Your task to perform on an android device: delete location history Image 0: 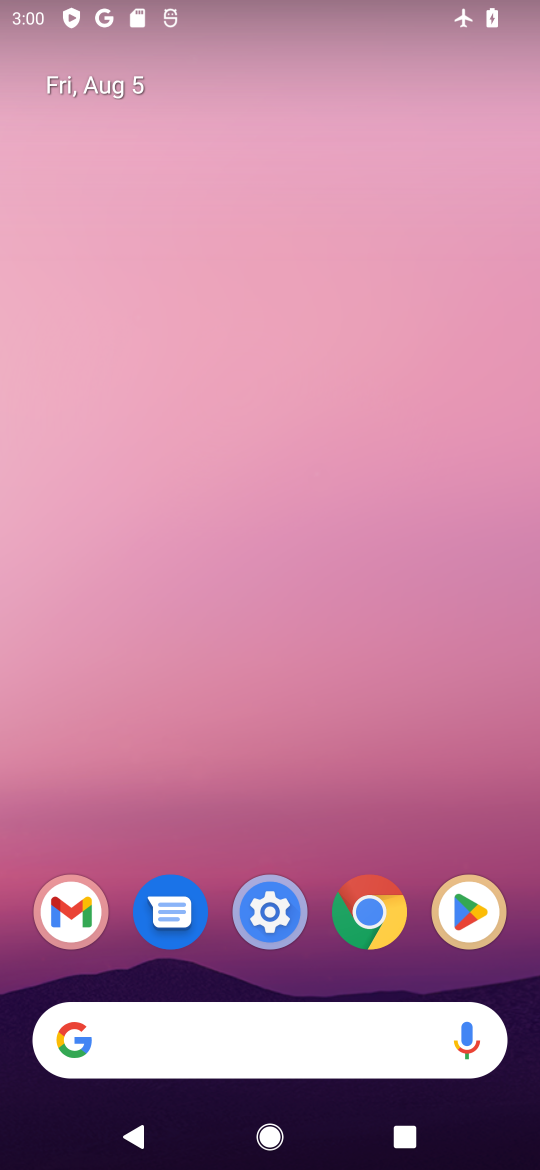
Step 0: drag from (217, 822) to (209, 3)
Your task to perform on an android device: delete location history Image 1: 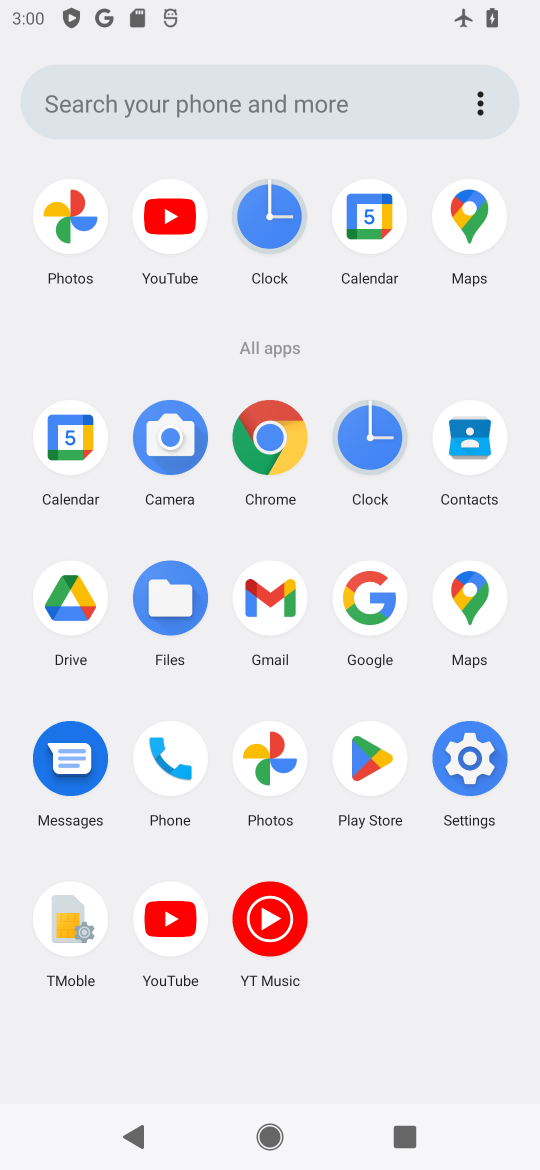
Step 1: click (466, 588)
Your task to perform on an android device: delete location history Image 2: 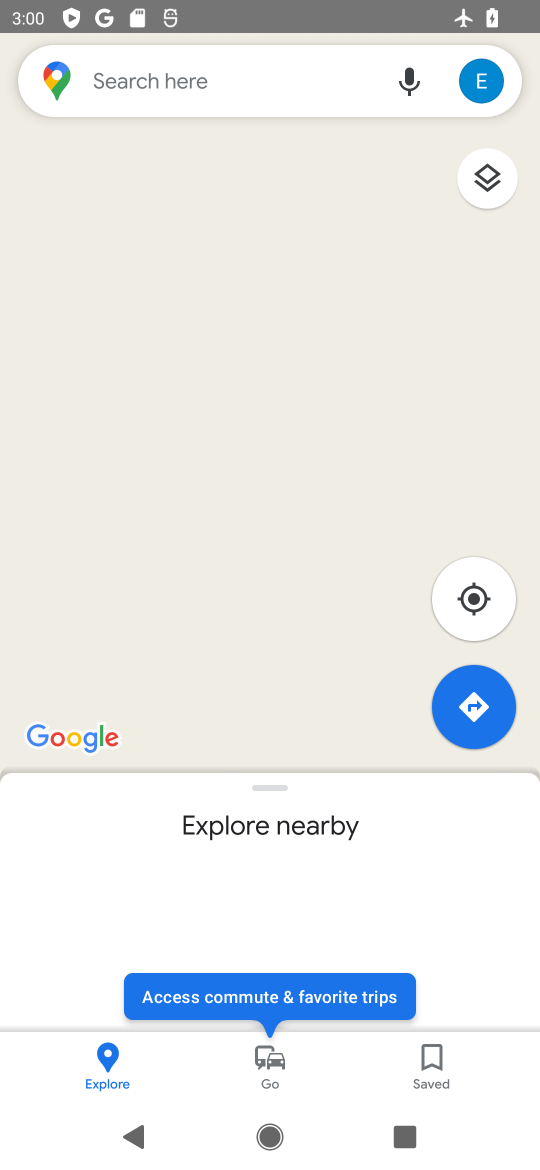
Step 2: click (54, 87)
Your task to perform on an android device: delete location history Image 3: 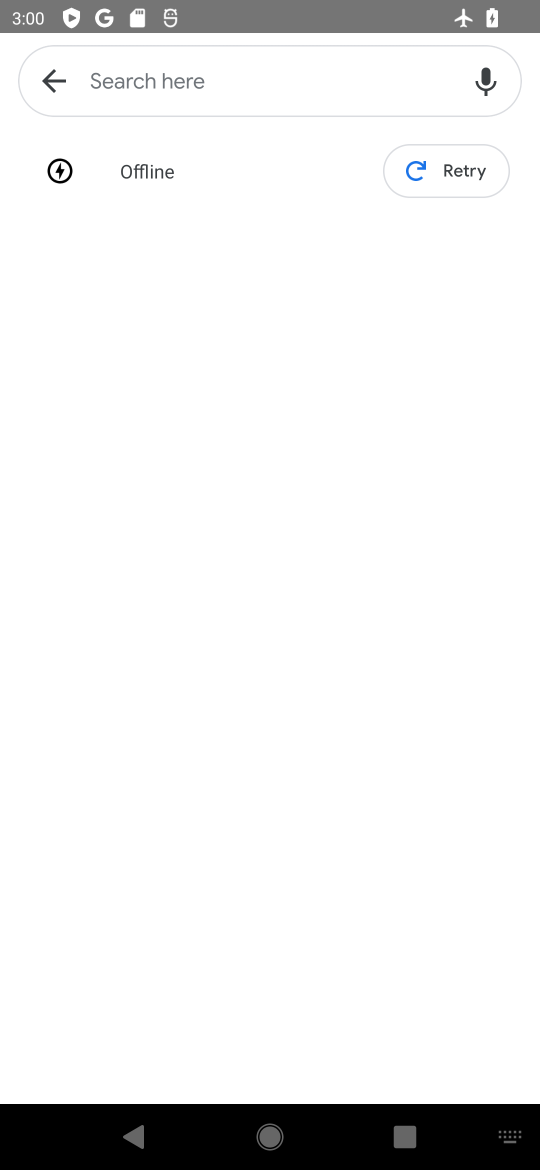
Step 3: click (54, 85)
Your task to perform on an android device: delete location history Image 4: 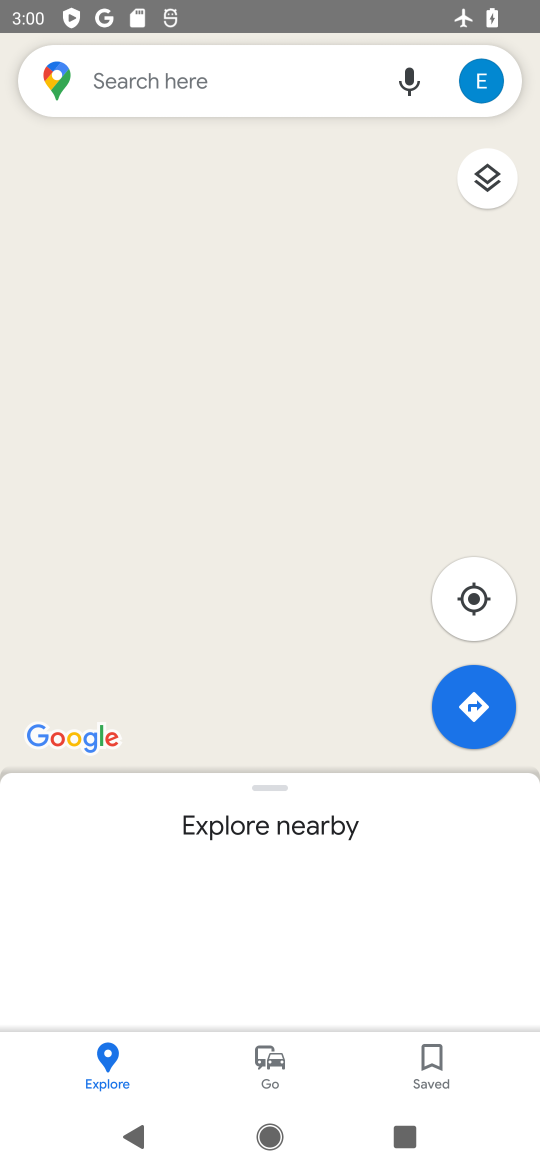
Step 4: click (485, 83)
Your task to perform on an android device: delete location history Image 5: 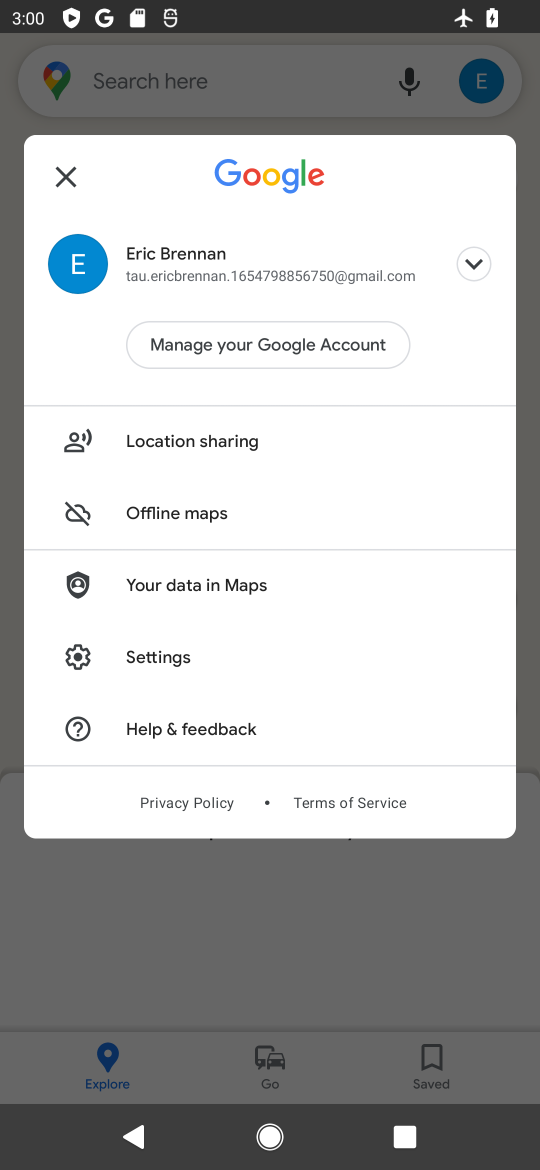
Step 5: click (176, 646)
Your task to perform on an android device: delete location history Image 6: 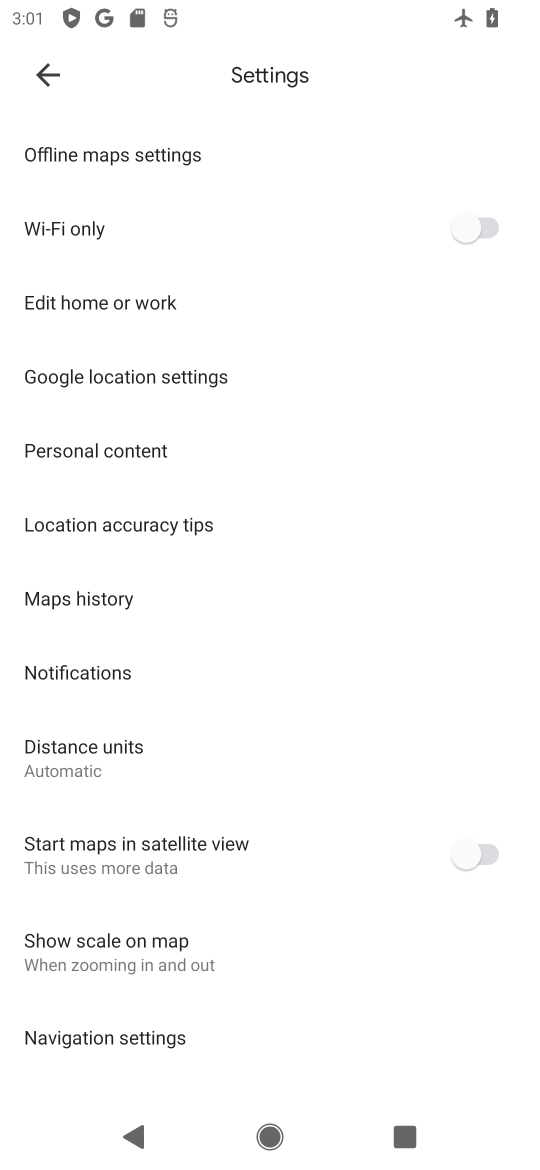
Step 6: drag from (170, 839) to (221, 547)
Your task to perform on an android device: delete location history Image 7: 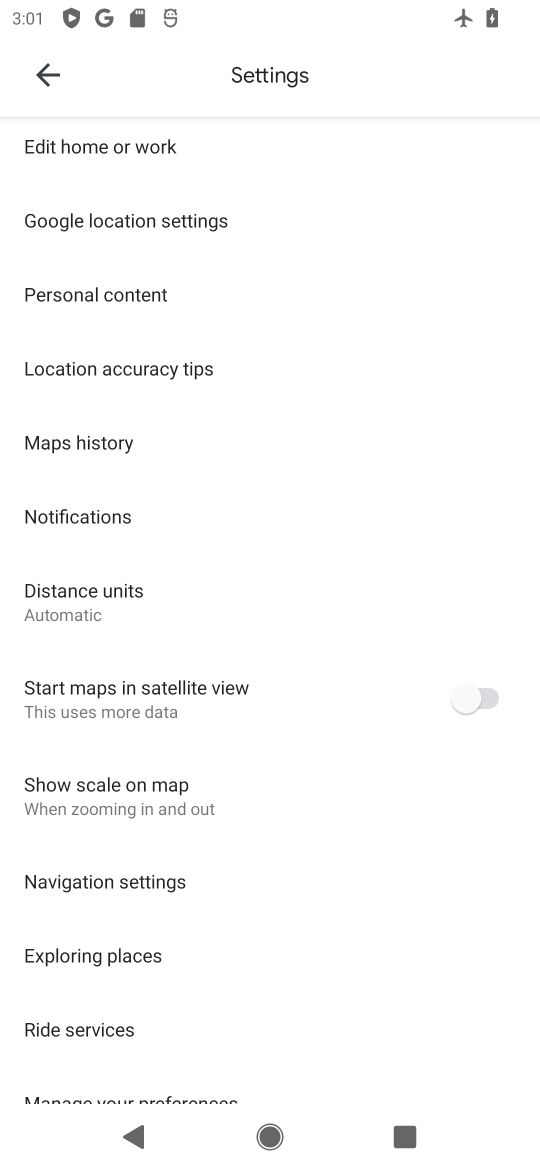
Step 7: drag from (198, 883) to (235, 543)
Your task to perform on an android device: delete location history Image 8: 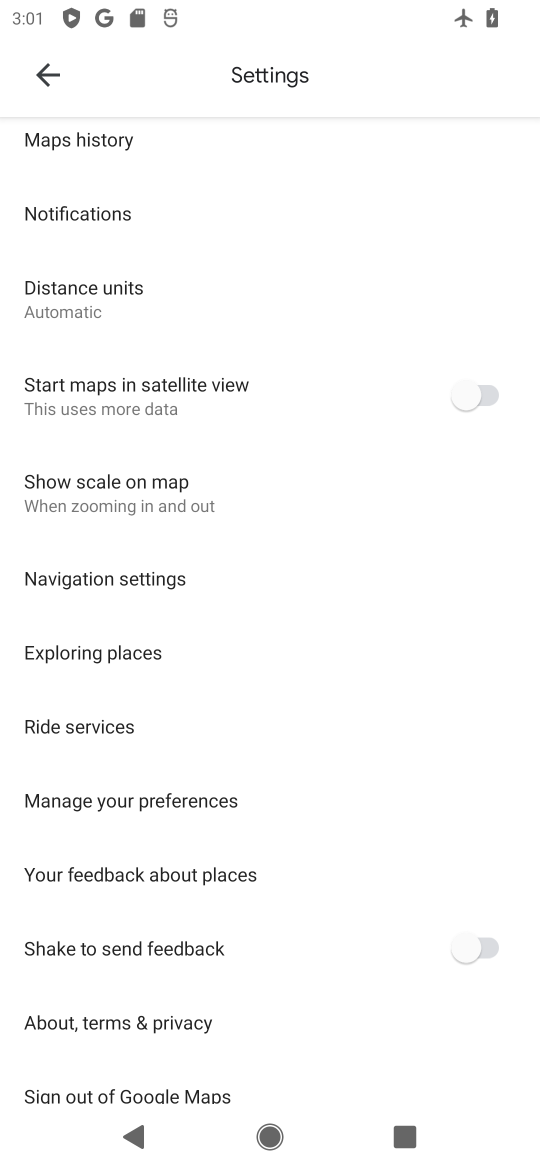
Step 8: drag from (219, 963) to (240, 748)
Your task to perform on an android device: delete location history Image 9: 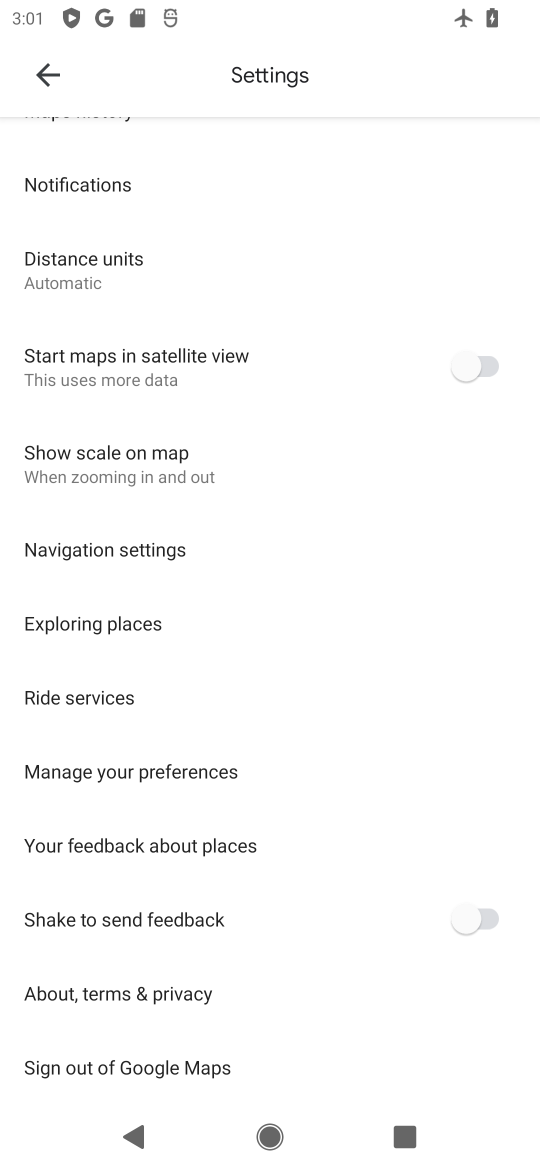
Step 9: drag from (192, 1041) to (217, 737)
Your task to perform on an android device: delete location history Image 10: 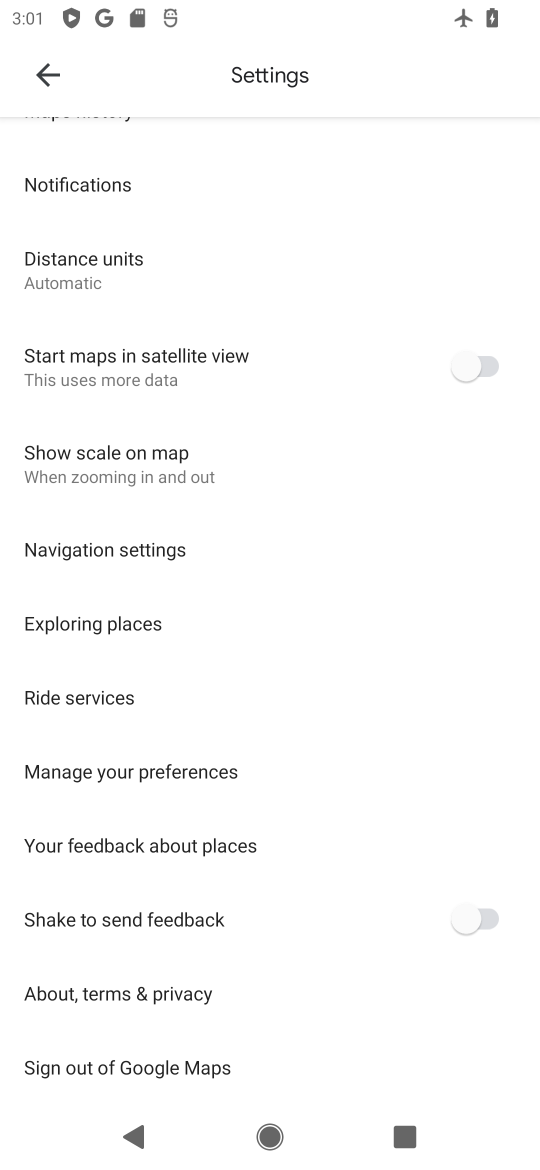
Step 10: drag from (188, 513) to (179, 1000)
Your task to perform on an android device: delete location history Image 11: 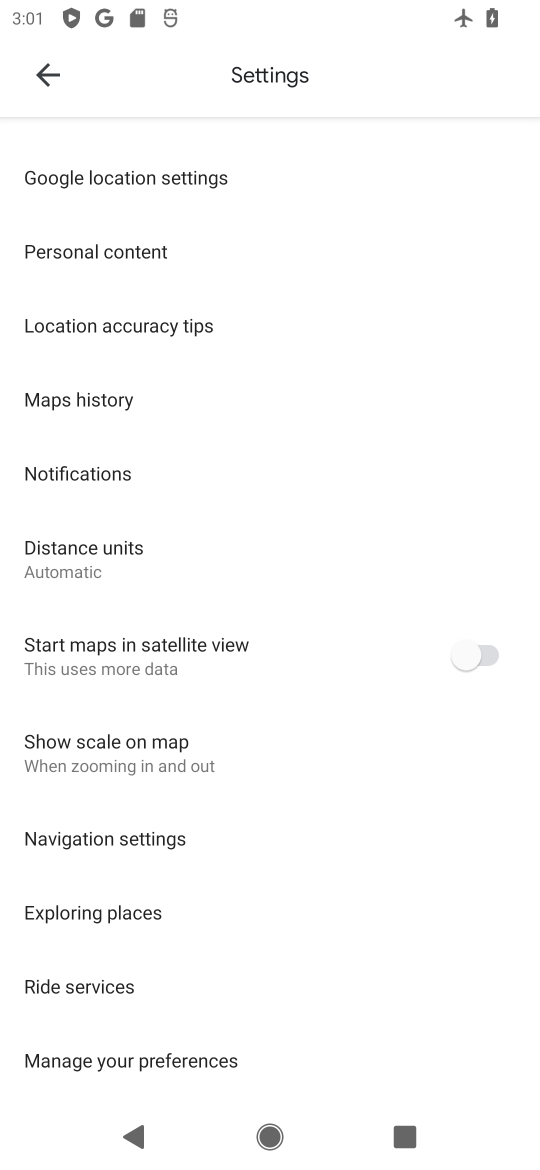
Step 11: drag from (177, 174) to (150, 669)
Your task to perform on an android device: delete location history Image 12: 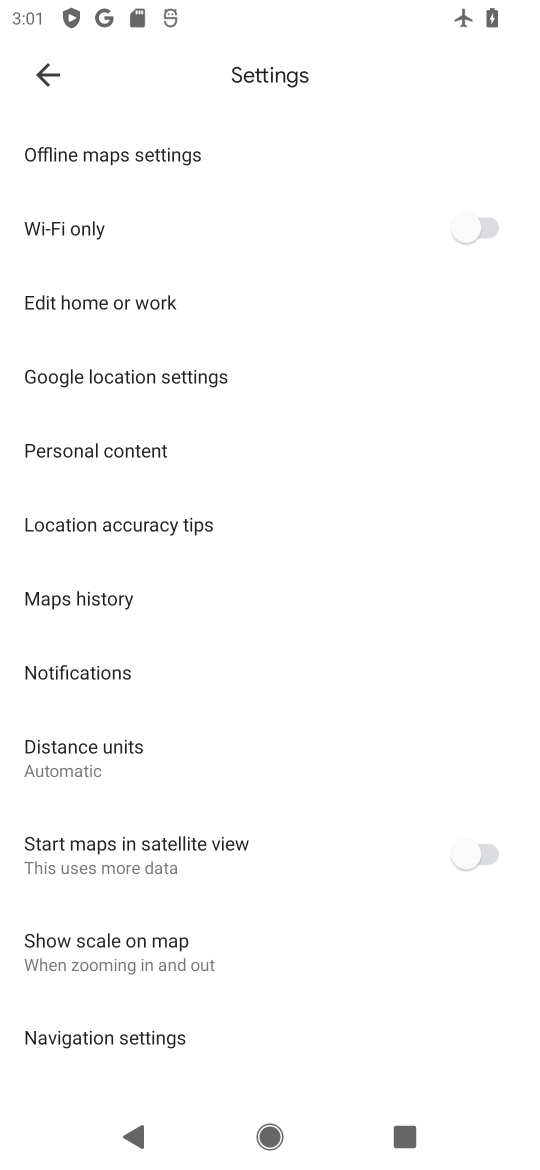
Step 12: click (55, 66)
Your task to perform on an android device: delete location history Image 13: 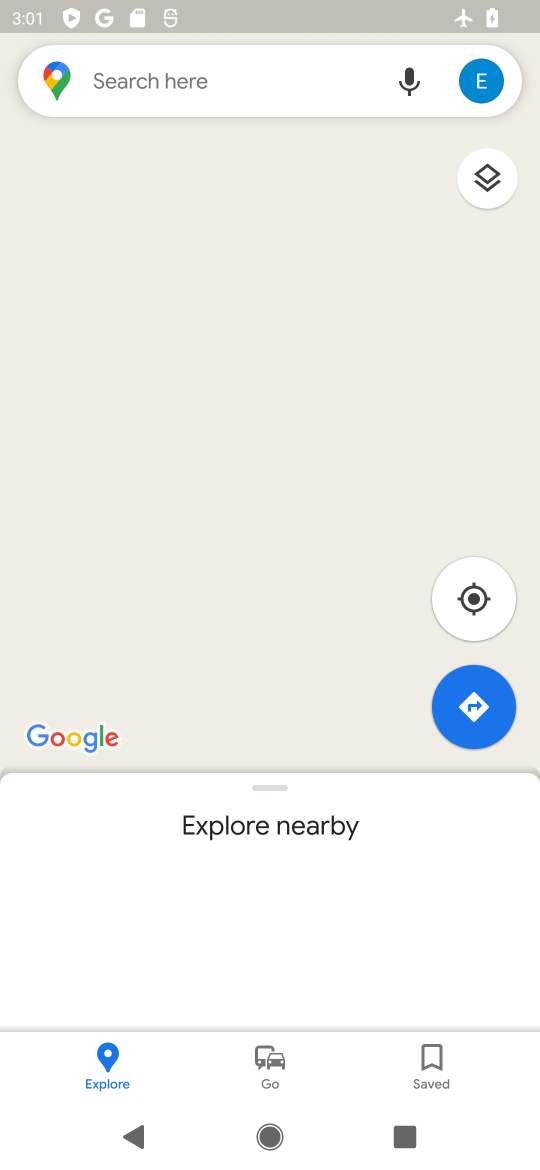
Step 13: click (497, 83)
Your task to perform on an android device: delete location history Image 14: 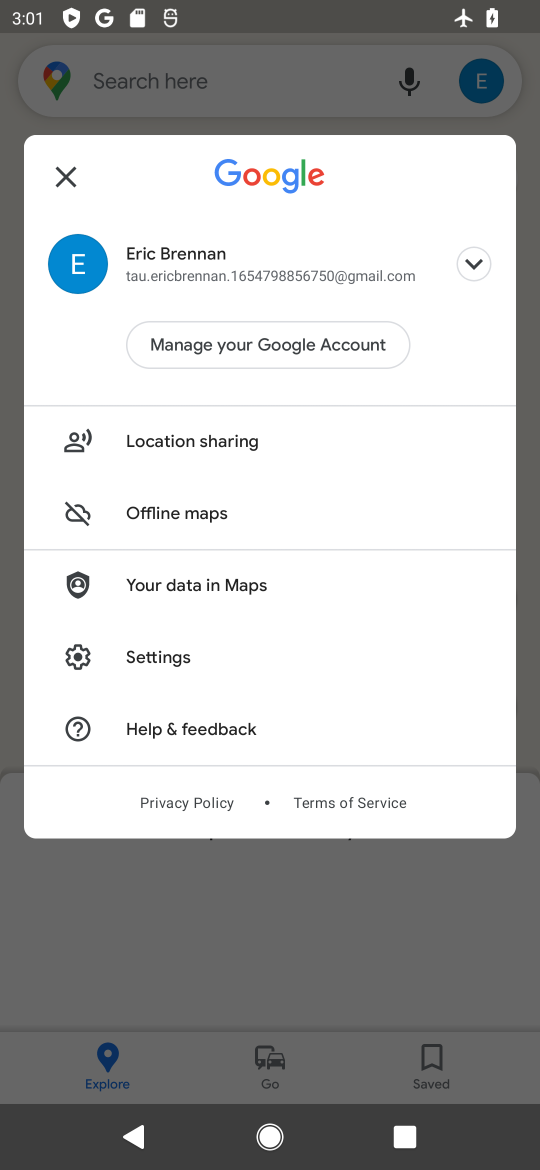
Step 14: click (226, 589)
Your task to perform on an android device: delete location history Image 15: 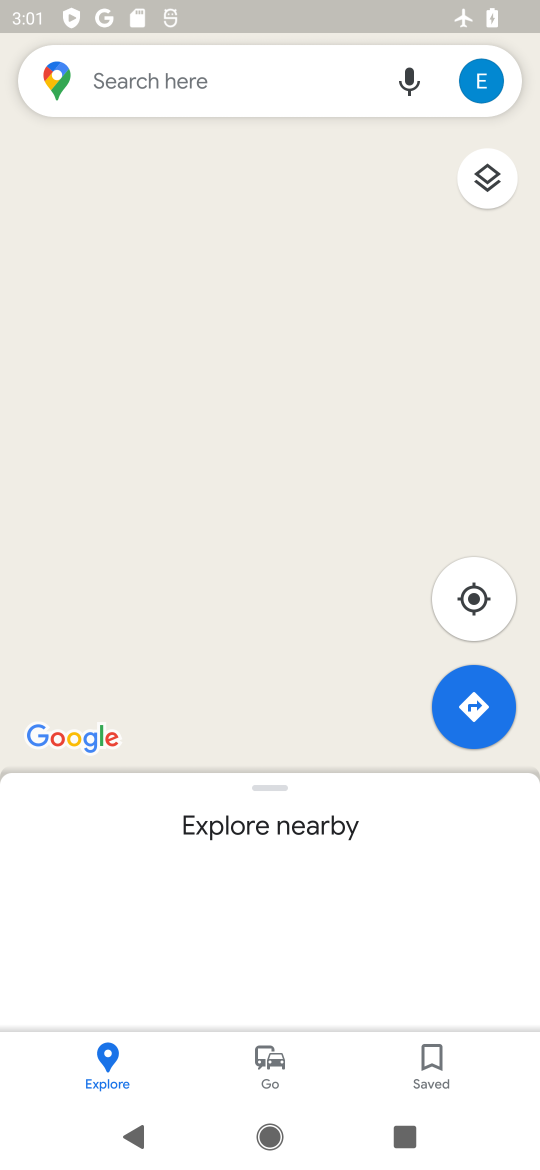
Step 15: task complete